Your task to perform on an android device: allow notifications from all sites in the chrome app Image 0: 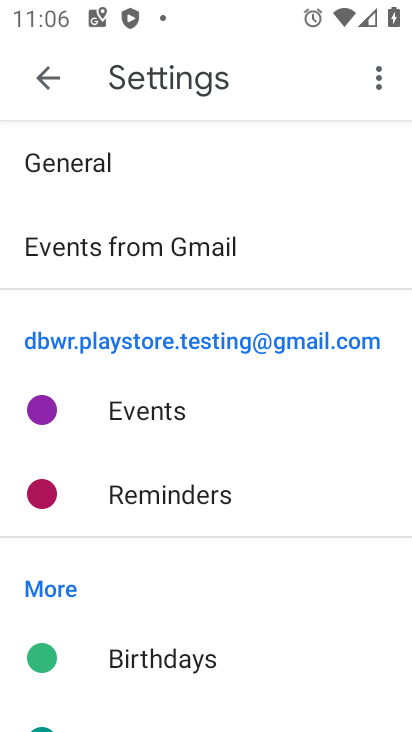
Step 0: press home button
Your task to perform on an android device: allow notifications from all sites in the chrome app Image 1: 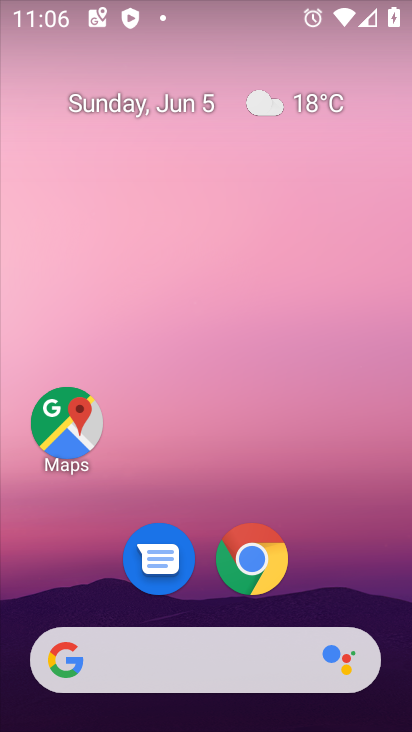
Step 1: click (281, 564)
Your task to perform on an android device: allow notifications from all sites in the chrome app Image 2: 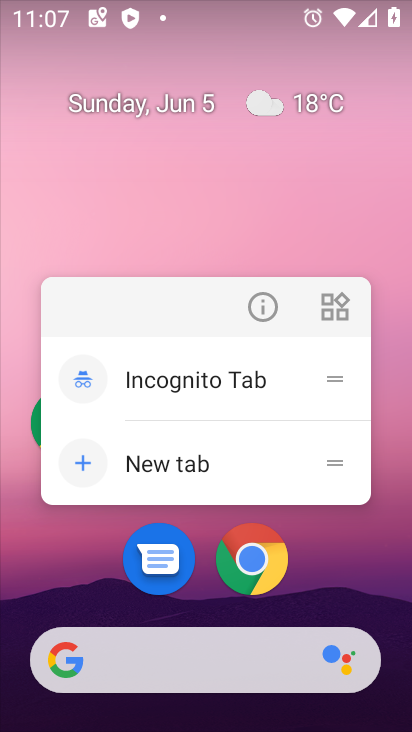
Step 2: click (246, 552)
Your task to perform on an android device: allow notifications from all sites in the chrome app Image 3: 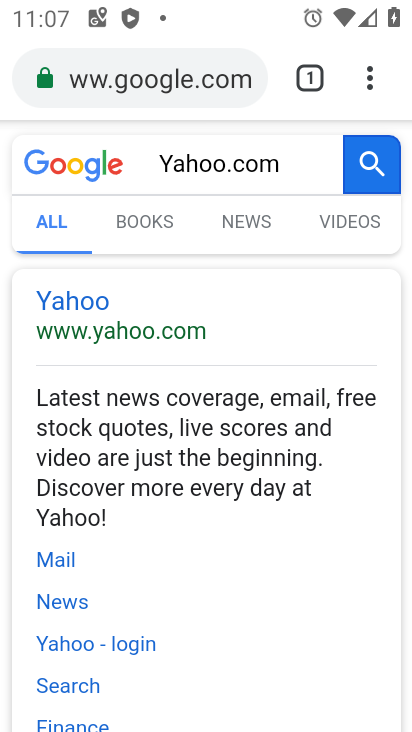
Step 3: click (372, 71)
Your task to perform on an android device: allow notifications from all sites in the chrome app Image 4: 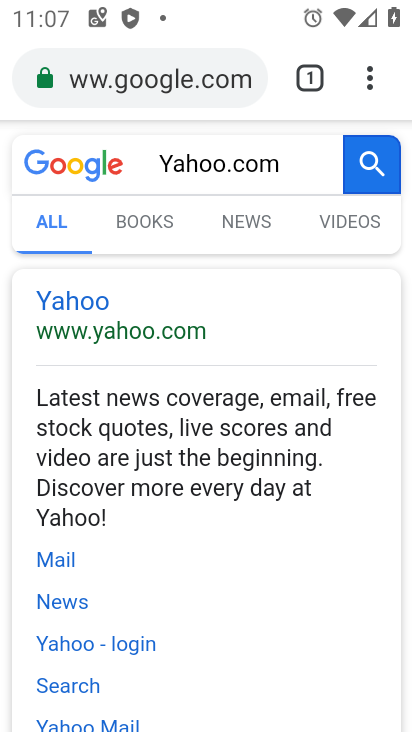
Step 4: click (369, 66)
Your task to perform on an android device: allow notifications from all sites in the chrome app Image 5: 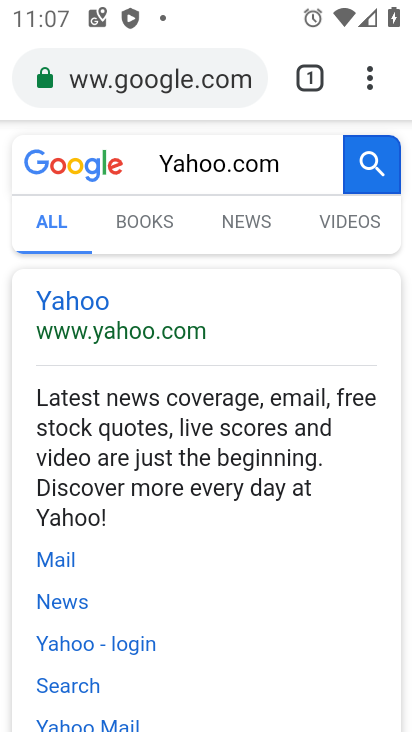
Step 5: click (368, 66)
Your task to perform on an android device: allow notifications from all sites in the chrome app Image 6: 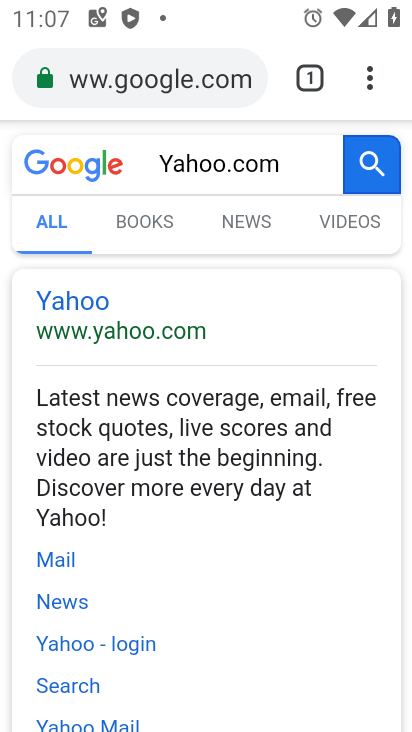
Step 6: click (368, 66)
Your task to perform on an android device: allow notifications from all sites in the chrome app Image 7: 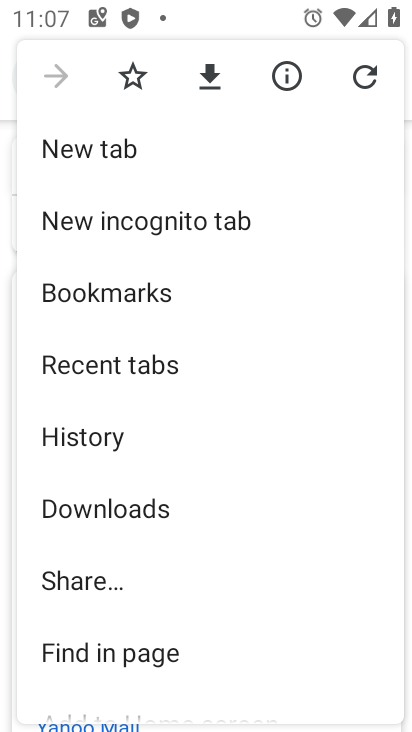
Step 7: drag from (253, 593) to (207, 277)
Your task to perform on an android device: allow notifications from all sites in the chrome app Image 8: 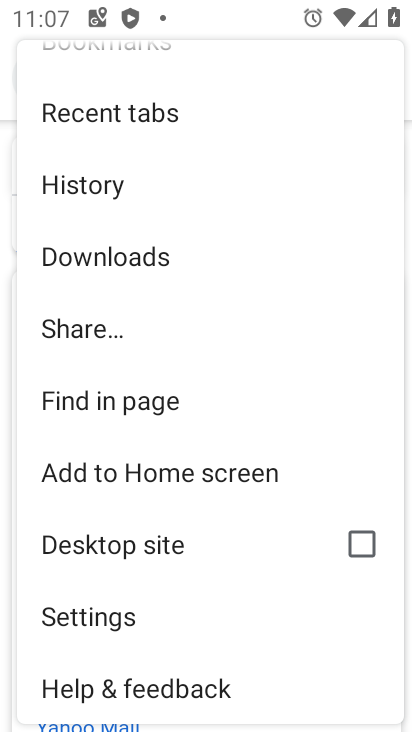
Step 8: click (101, 612)
Your task to perform on an android device: allow notifications from all sites in the chrome app Image 9: 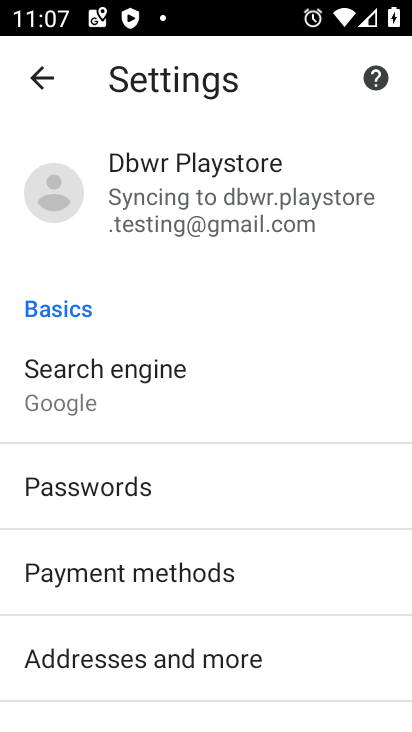
Step 9: click (40, 73)
Your task to perform on an android device: allow notifications from all sites in the chrome app Image 10: 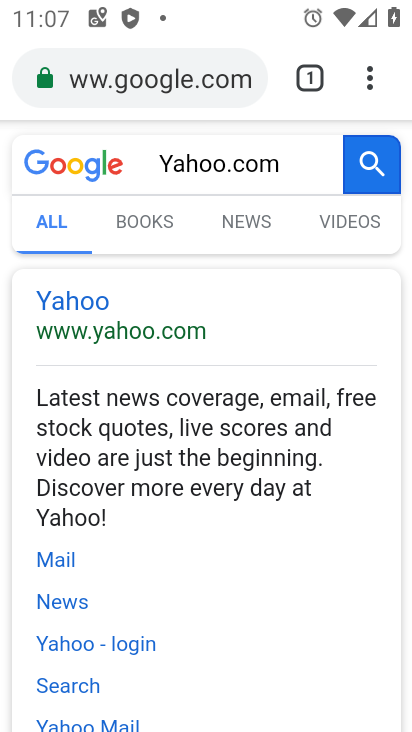
Step 10: click (368, 78)
Your task to perform on an android device: allow notifications from all sites in the chrome app Image 11: 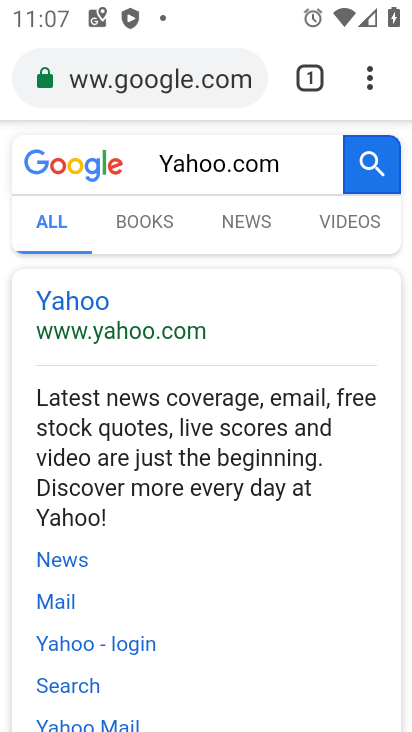
Step 11: click (372, 81)
Your task to perform on an android device: allow notifications from all sites in the chrome app Image 12: 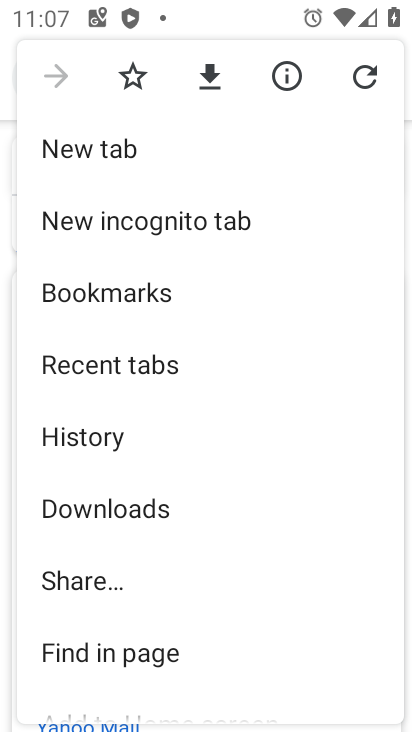
Step 12: drag from (299, 637) to (321, 297)
Your task to perform on an android device: allow notifications from all sites in the chrome app Image 13: 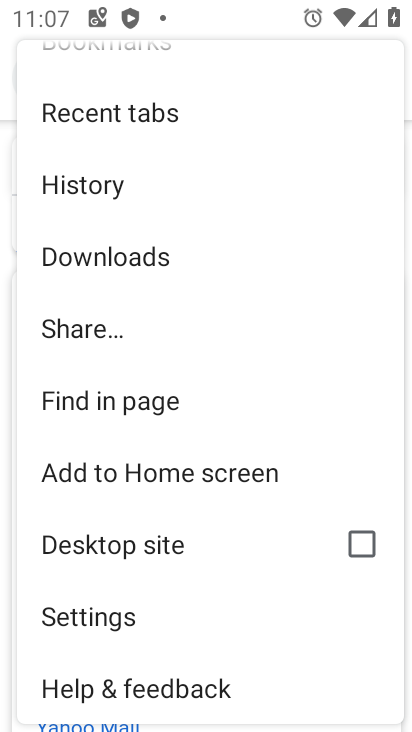
Step 13: click (75, 618)
Your task to perform on an android device: allow notifications from all sites in the chrome app Image 14: 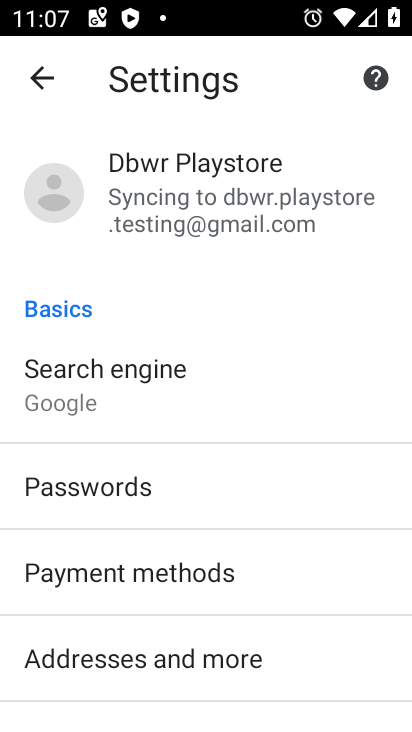
Step 14: drag from (296, 665) to (294, 325)
Your task to perform on an android device: allow notifications from all sites in the chrome app Image 15: 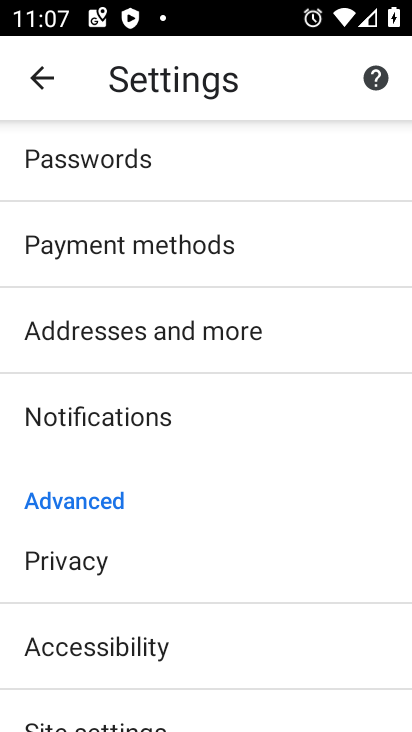
Step 15: drag from (229, 646) to (230, 289)
Your task to perform on an android device: allow notifications from all sites in the chrome app Image 16: 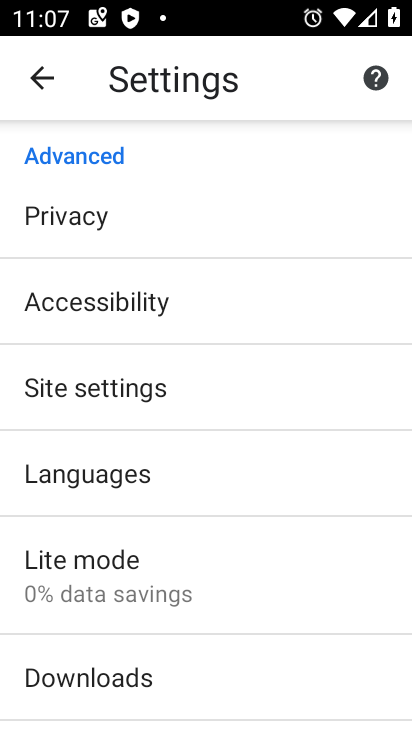
Step 16: click (118, 398)
Your task to perform on an android device: allow notifications from all sites in the chrome app Image 17: 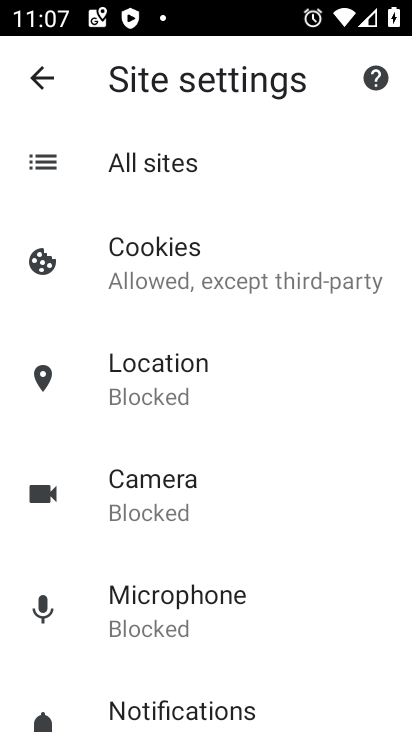
Step 17: drag from (255, 665) to (247, 321)
Your task to perform on an android device: allow notifications from all sites in the chrome app Image 18: 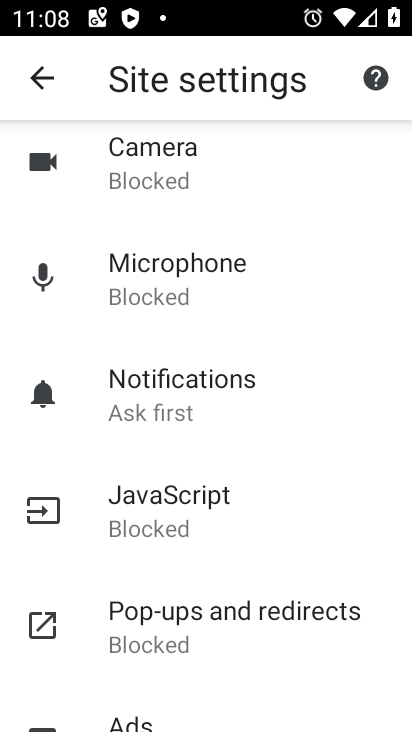
Step 18: click (198, 388)
Your task to perform on an android device: allow notifications from all sites in the chrome app Image 19: 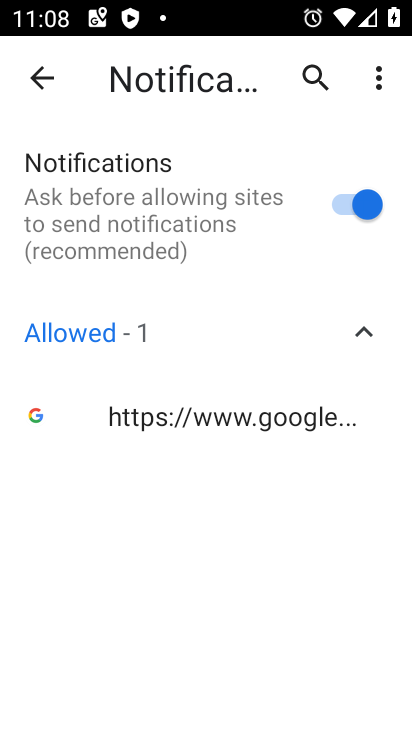
Step 19: task complete